Your task to perform on an android device: change alarm snooze length Image 0: 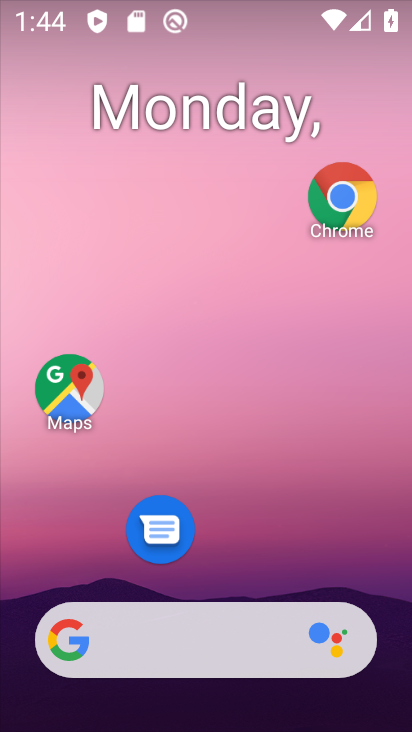
Step 0: drag from (216, 590) to (224, 8)
Your task to perform on an android device: change alarm snooze length Image 1: 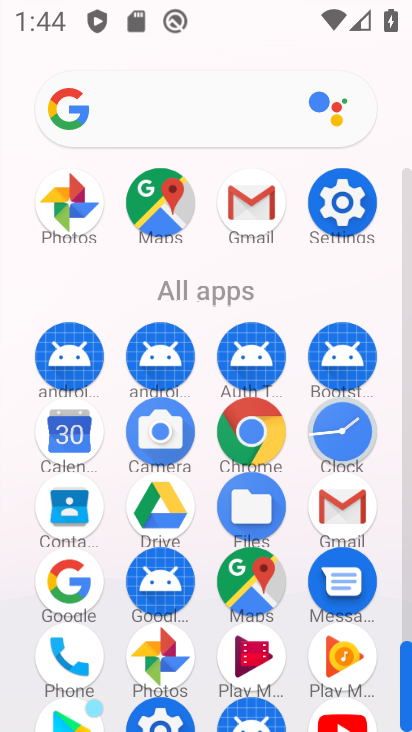
Step 1: click (333, 438)
Your task to perform on an android device: change alarm snooze length Image 2: 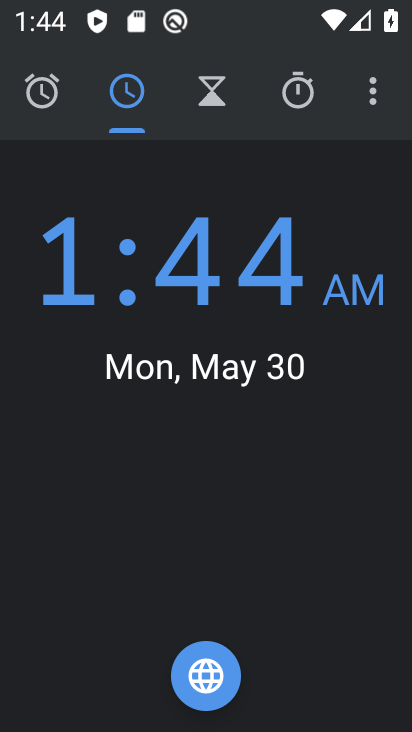
Step 2: click (360, 90)
Your task to perform on an android device: change alarm snooze length Image 3: 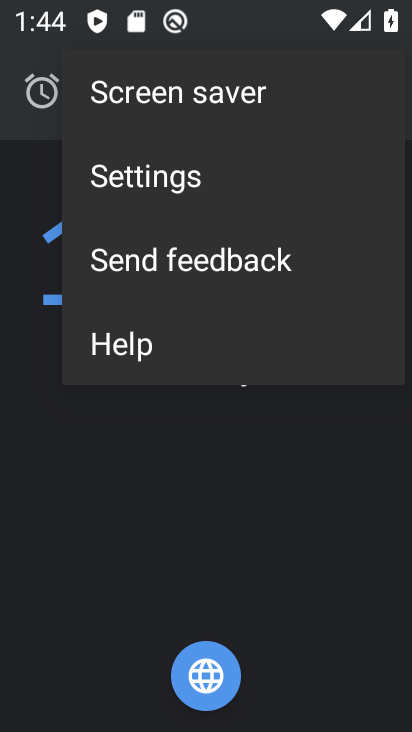
Step 3: click (157, 176)
Your task to perform on an android device: change alarm snooze length Image 4: 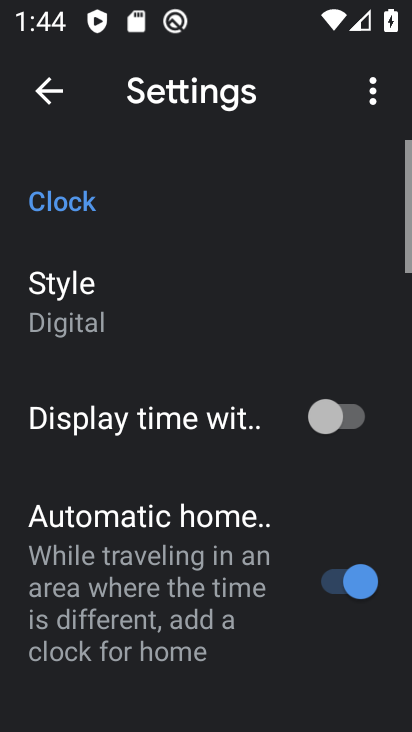
Step 4: drag from (195, 560) to (151, 197)
Your task to perform on an android device: change alarm snooze length Image 5: 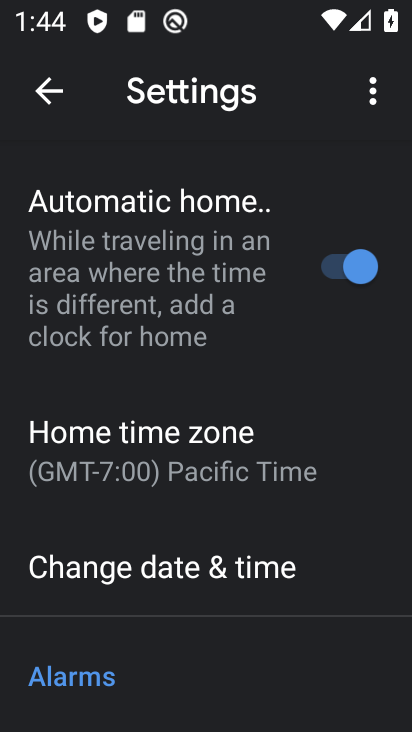
Step 5: drag from (207, 562) to (166, 167)
Your task to perform on an android device: change alarm snooze length Image 6: 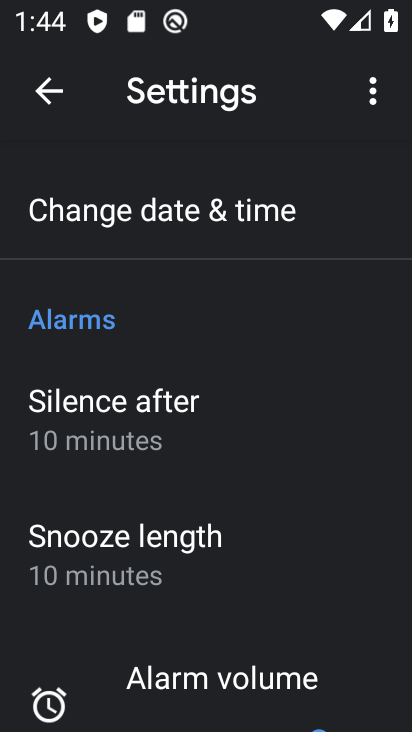
Step 6: click (196, 518)
Your task to perform on an android device: change alarm snooze length Image 7: 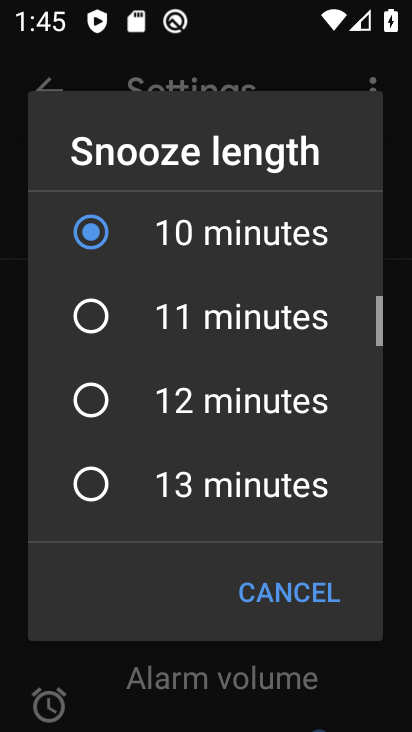
Step 7: click (197, 317)
Your task to perform on an android device: change alarm snooze length Image 8: 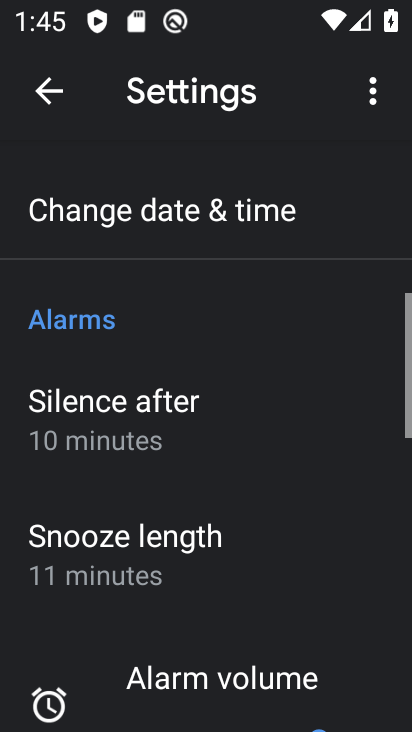
Step 8: task complete